Your task to perform on an android device: Open Youtube and go to "Your channel" Image 0: 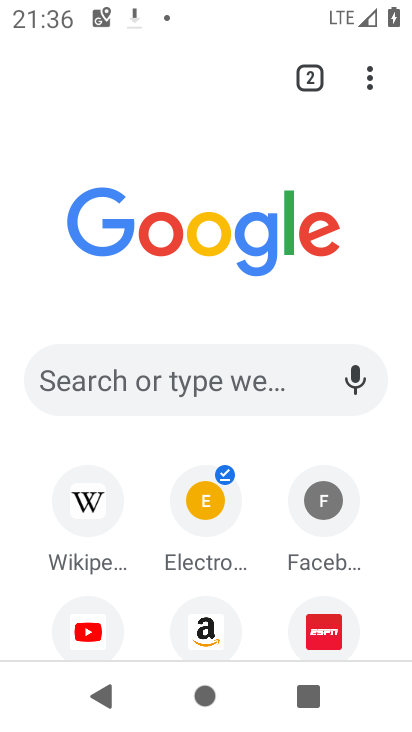
Step 0: press back button
Your task to perform on an android device: Open Youtube and go to "Your channel" Image 1: 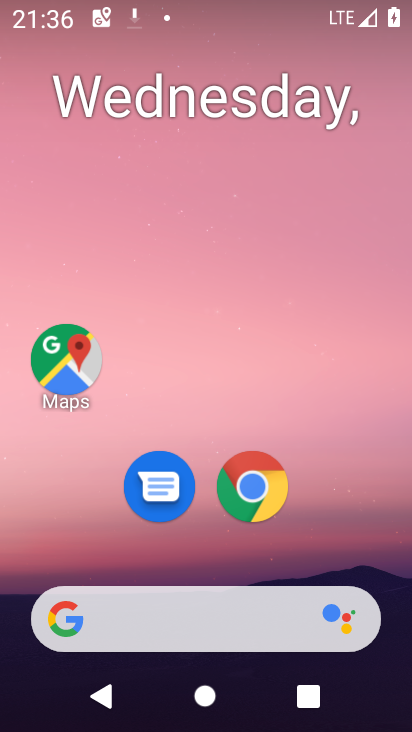
Step 1: drag from (206, 547) to (236, 11)
Your task to perform on an android device: Open Youtube and go to "Your channel" Image 2: 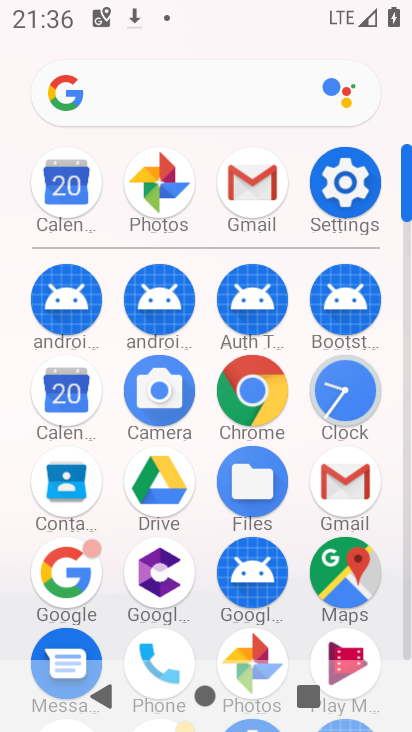
Step 2: drag from (216, 632) to (299, 52)
Your task to perform on an android device: Open Youtube and go to "Your channel" Image 3: 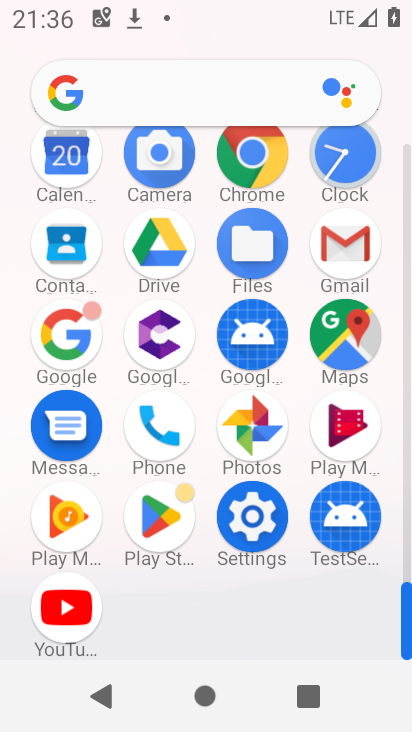
Step 3: click (68, 616)
Your task to perform on an android device: Open Youtube and go to "Your channel" Image 4: 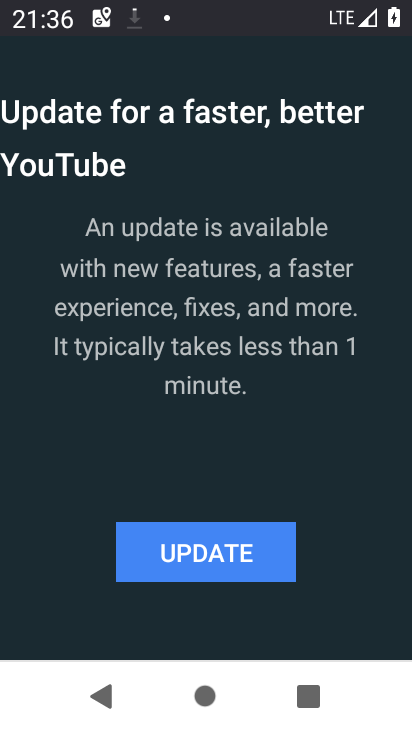
Step 4: click (176, 557)
Your task to perform on an android device: Open Youtube and go to "Your channel" Image 5: 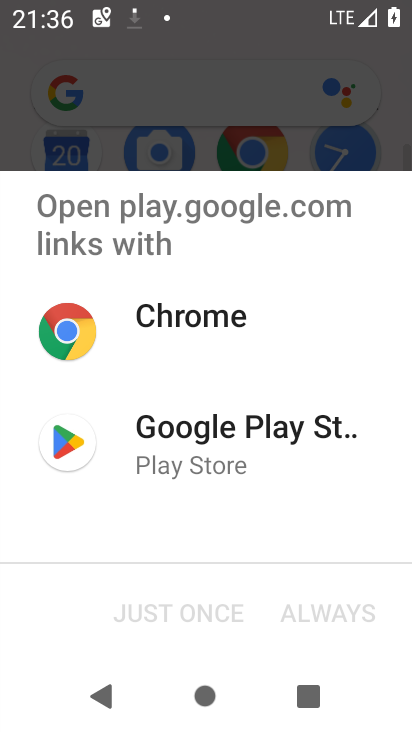
Step 5: click (215, 450)
Your task to perform on an android device: Open Youtube and go to "Your channel" Image 6: 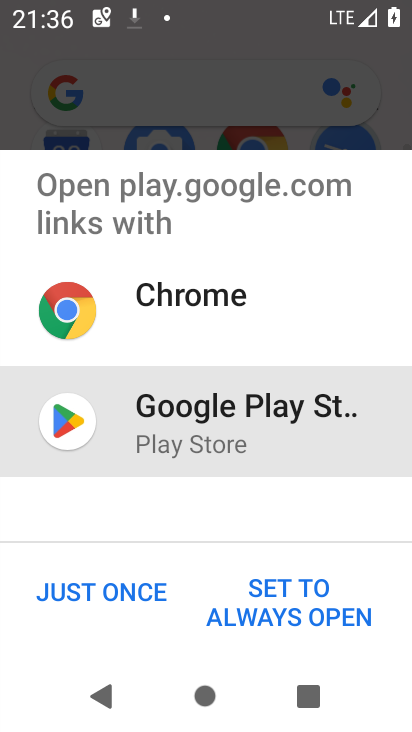
Step 6: click (127, 593)
Your task to perform on an android device: Open Youtube and go to "Your channel" Image 7: 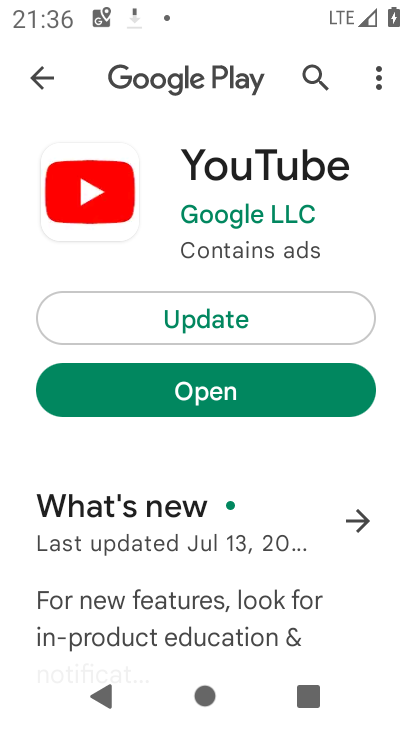
Step 7: click (216, 323)
Your task to perform on an android device: Open Youtube and go to "Your channel" Image 8: 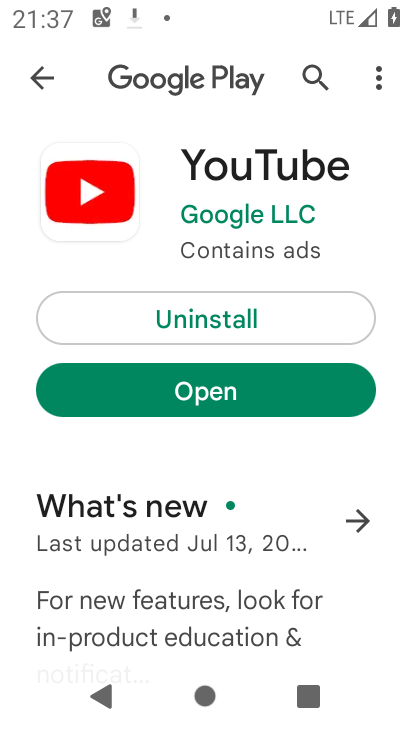
Step 8: click (181, 400)
Your task to perform on an android device: Open Youtube and go to "Your channel" Image 9: 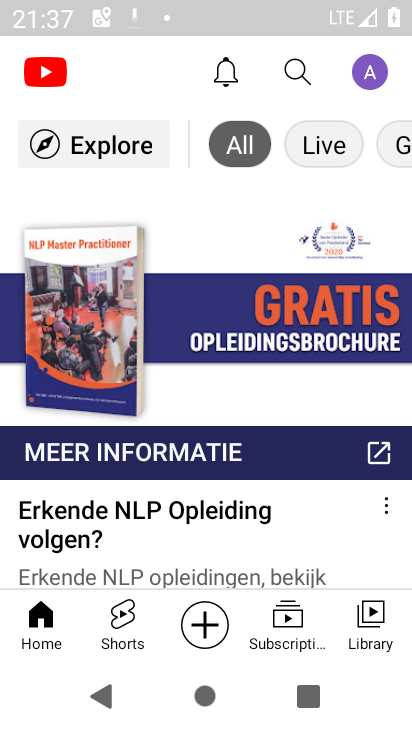
Step 9: click (369, 71)
Your task to perform on an android device: Open Youtube and go to "Your channel" Image 10: 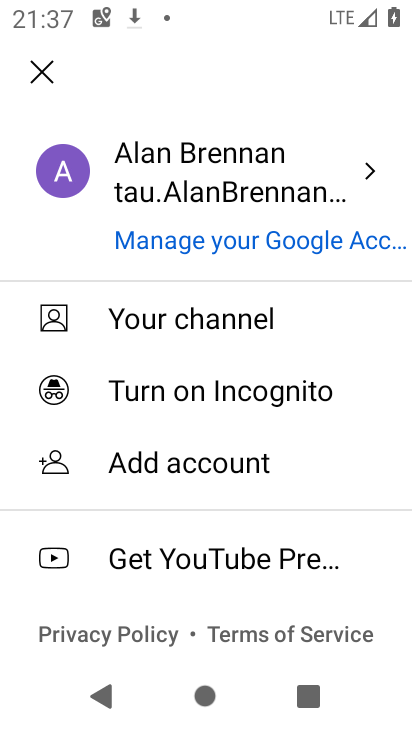
Step 10: click (141, 307)
Your task to perform on an android device: Open Youtube and go to "Your channel" Image 11: 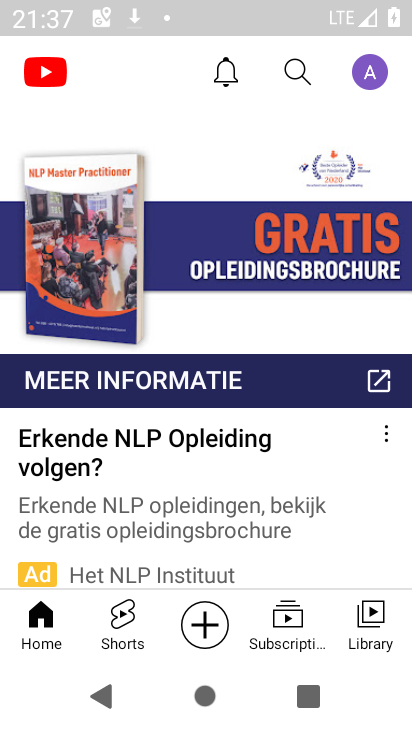
Step 11: task complete